Your task to perform on an android device: Go to sound settings Image 0: 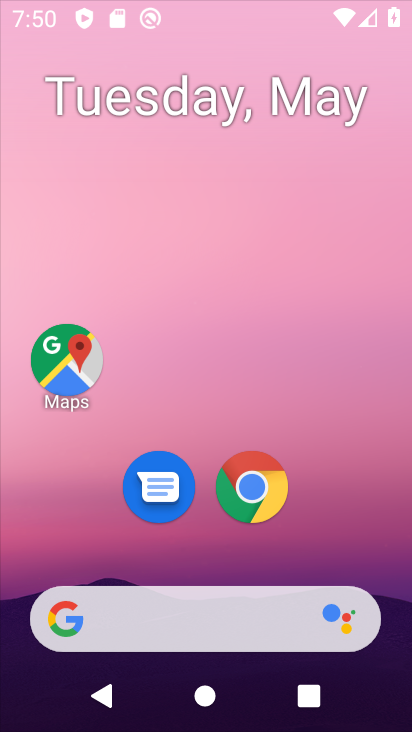
Step 0: click (356, 201)
Your task to perform on an android device: Go to sound settings Image 1: 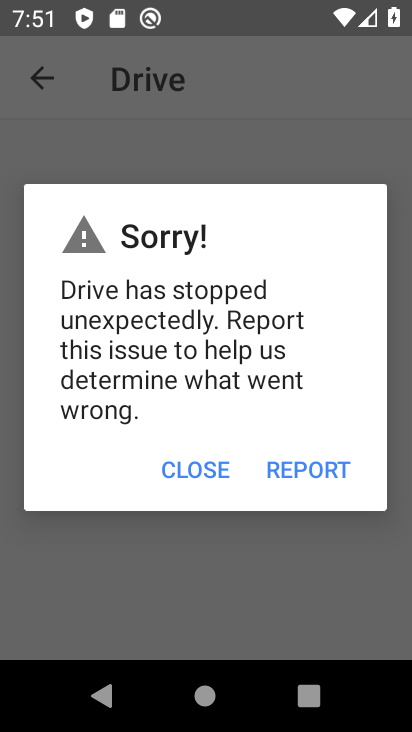
Step 1: press home button
Your task to perform on an android device: Go to sound settings Image 2: 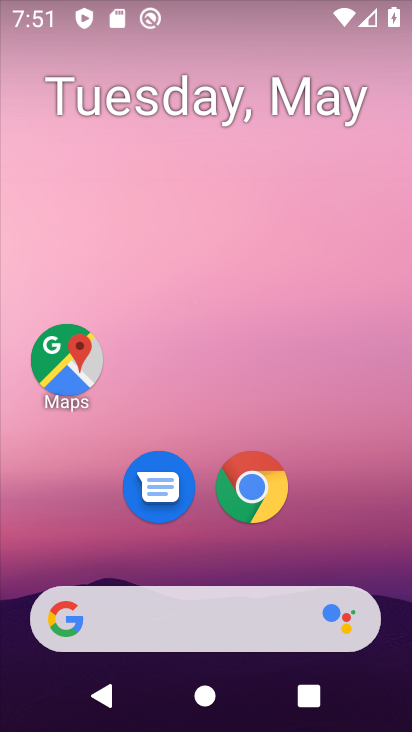
Step 2: drag from (339, 540) to (337, 37)
Your task to perform on an android device: Go to sound settings Image 3: 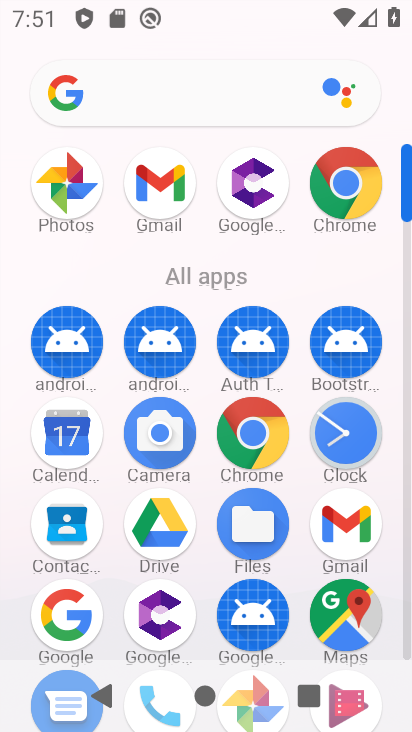
Step 3: click (403, 576)
Your task to perform on an android device: Go to sound settings Image 4: 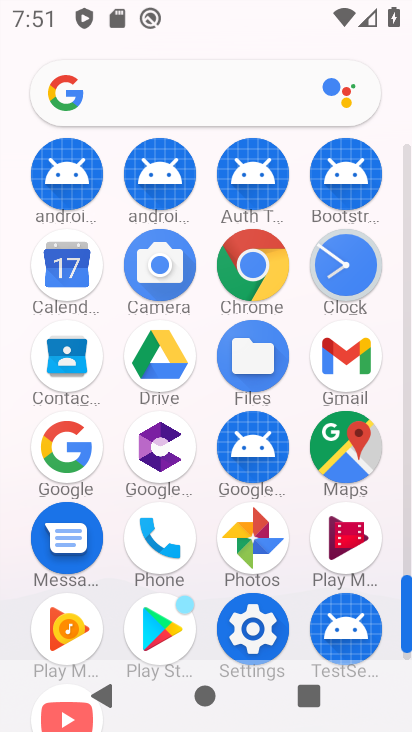
Step 4: click (271, 617)
Your task to perform on an android device: Go to sound settings Image 5: 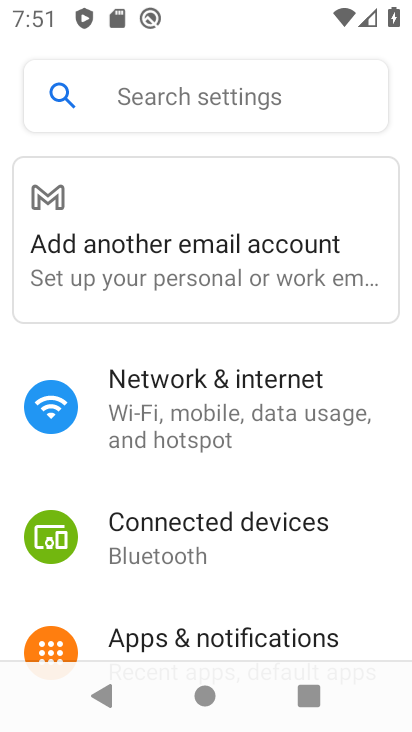
Step 5: drag from (155, 477) to (235, 182)
Your task to perform on an android device: Go to sound settings Image 6: 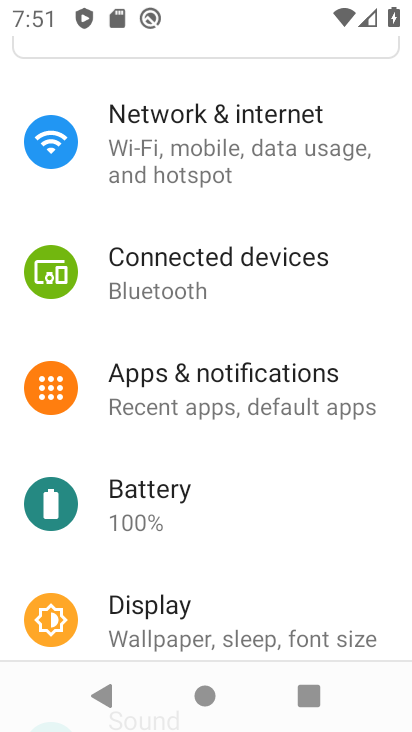
Step 6: drag from (158, 569) to (201, 335)
Your task to perform on an android device: Go to sound settings Image 7: 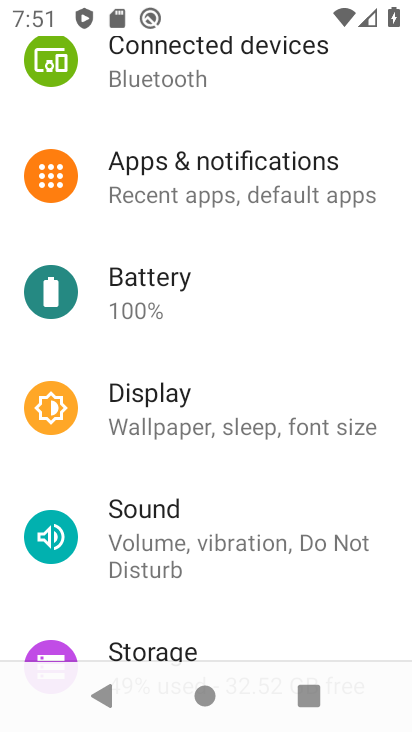
Step 7: click (197, 567)
Your task to perform on an android device: Go to sound settings Image 8: 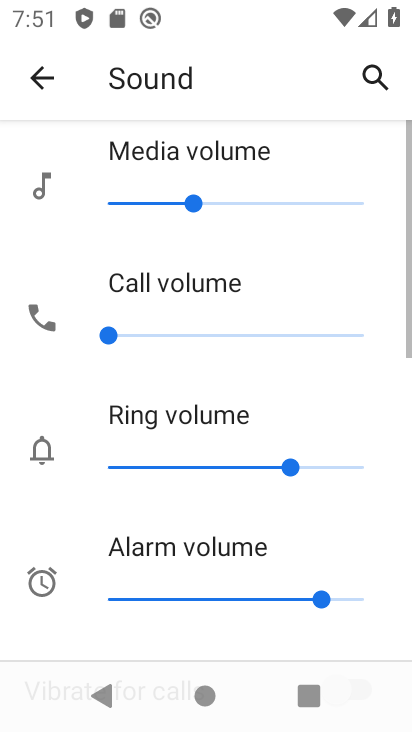
Step 8: task complete